Your task to perform on an android device: delete the emails in spam in the gmail app Image 0: 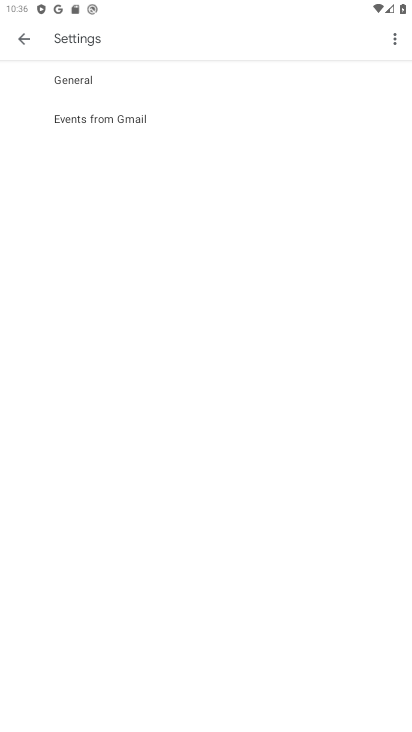
Step 0: press home button
Your task to perform on an android device: delete the emails in spam in the gmail app Image 1: 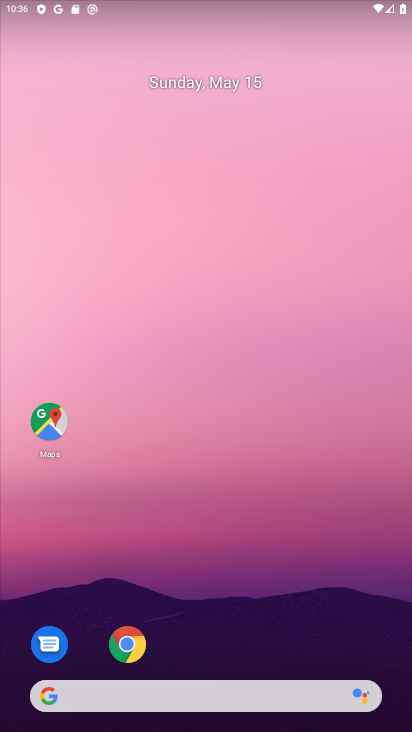
Step 1: drag from (287, 610) to (183, 151)
Your task to perform on an android device: delete the emails in spam in the gmail app Image 2: 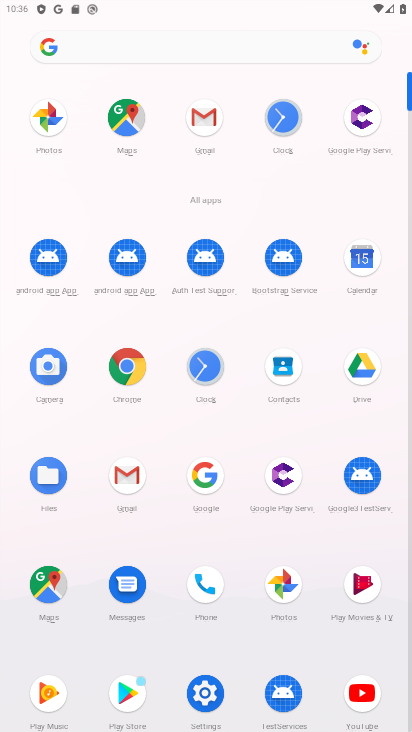
Step 2: click (199, 112)
Your task to perform on an android device: delete the emails in spam in the gmail app Image 3: 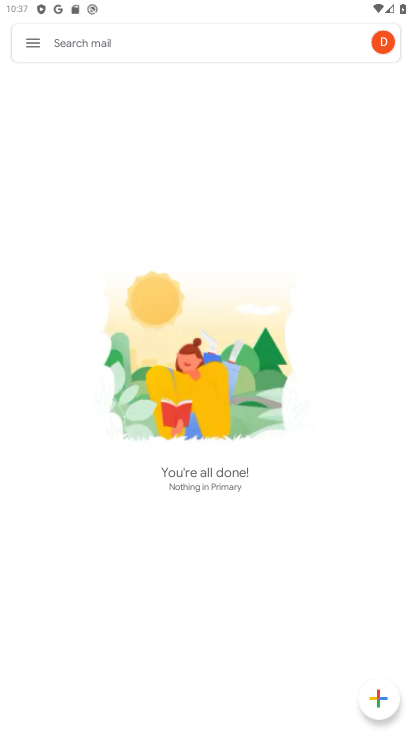
Step 3: click (31, 48)
Your task to perform on an android device: delete the emails in spam in the gmail app Image 4: 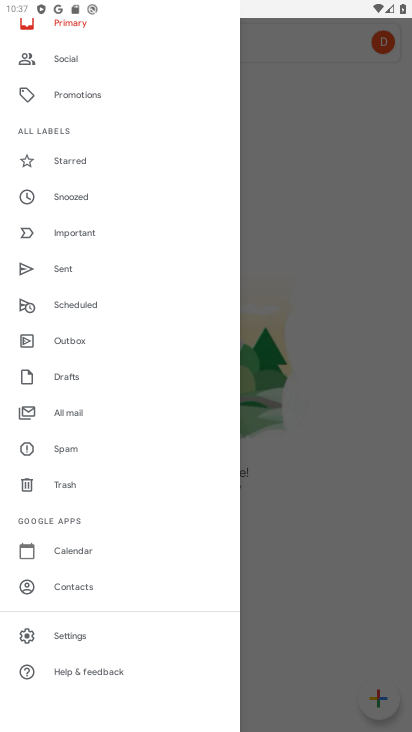
Step 4: click (98, 447)
Your task to perform on an android device: delete the emails in spam in the gmail app Image 5: 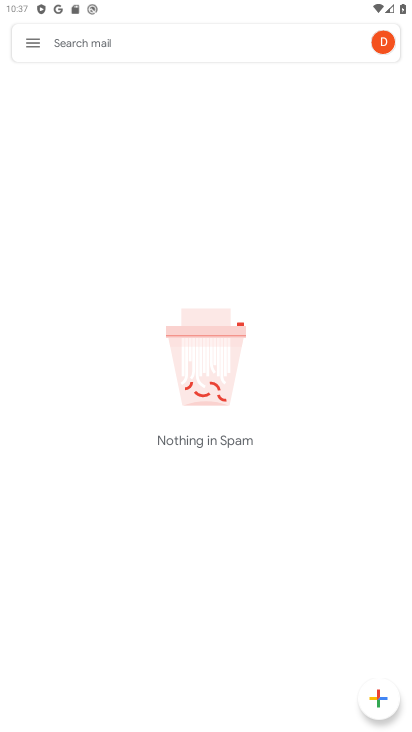
Step 5: task complete